Your task to perform on an android device: add a contact Image 0: 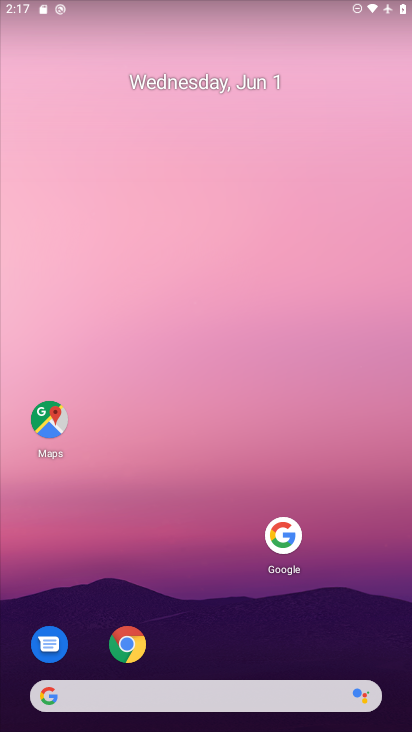
Step 0: press home button
Your task to perform on an android device: add a contact Image 1: 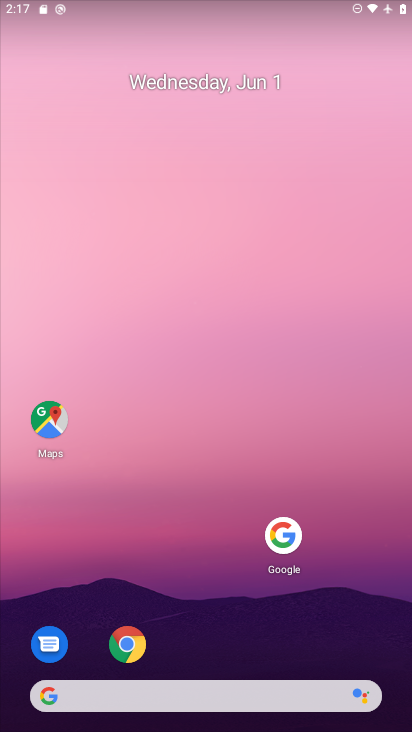
Step 1: drag from (200, 688) to (301, 172)
Your task to perform on an android device: add a contact Image 2: 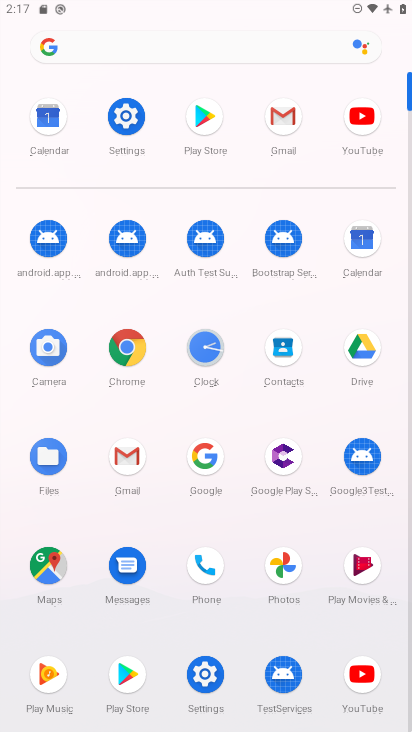
Step 2: click (278, 353)
Your task to perform on an android device: add a contact Image 3: 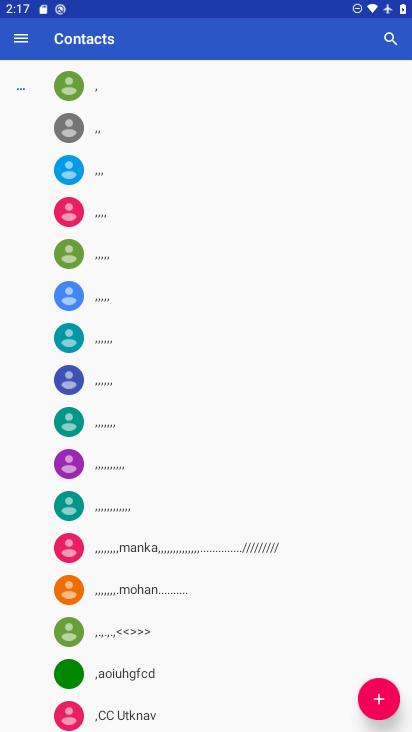
Step 3: click (372, 702)
Your task to perform on an android device: add a contact Image 4: 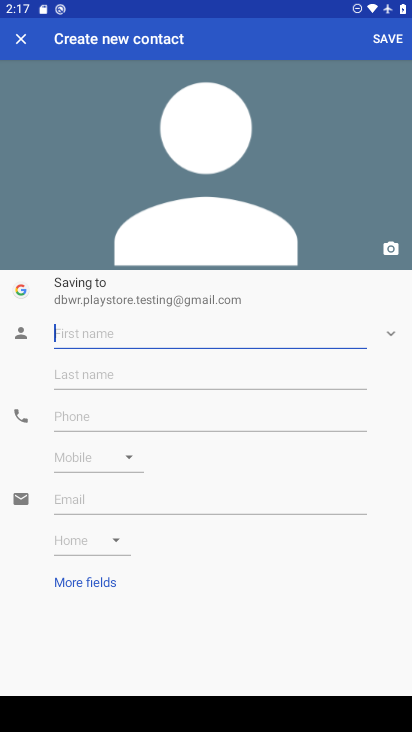
Step 4: type "fgttyuhhg"
Your task to perform on an android device: add a contact Image 5: 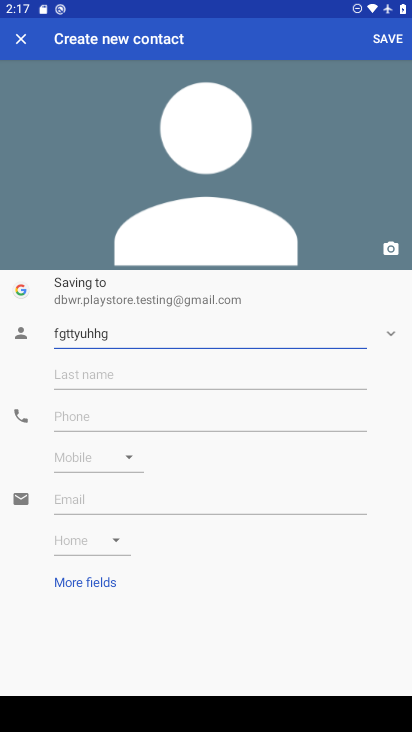
Step 5: click (73, 412)
Your task to perform on an android device: add a contact Image 6: 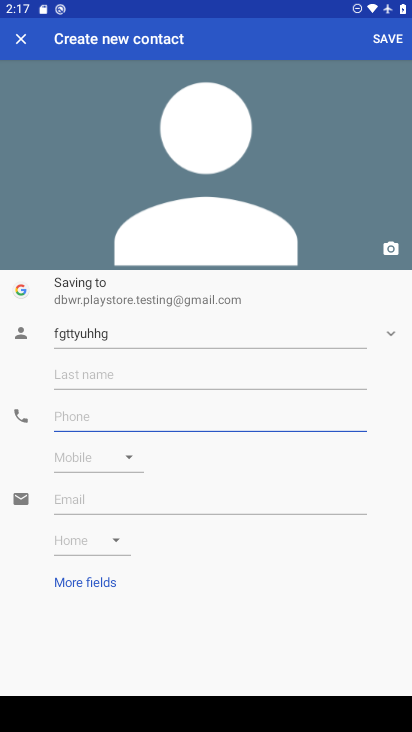
Step 6: type "5337766"
Your task to perform on an android device: add a contact Image 7: 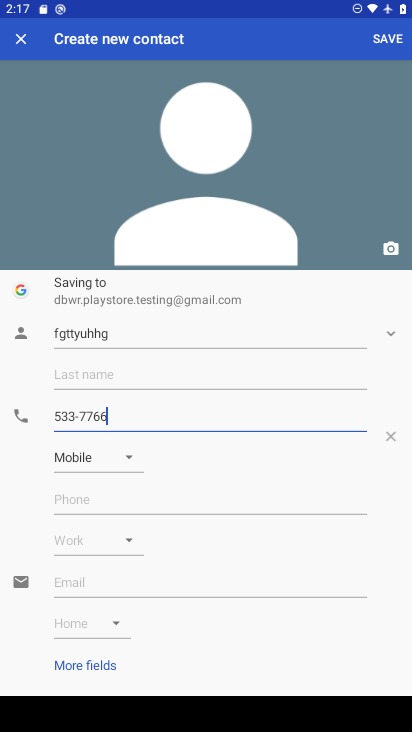
Step 7: click (384, 41)
Your task to perform on an android device: add a contact Image 8: 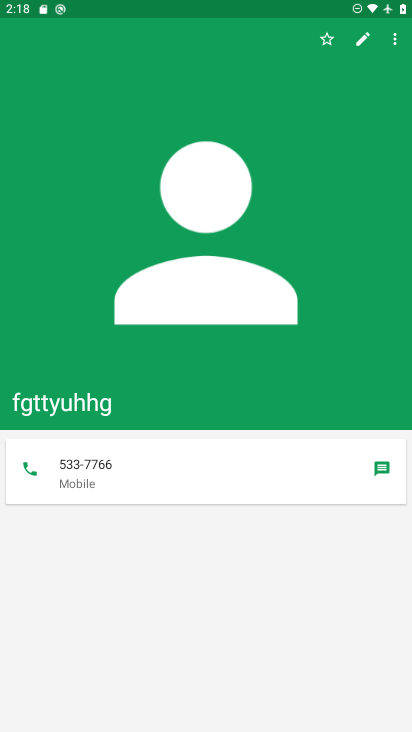
Step 8: task complete